Your task to perform on an android device: change the clock style Image 0: 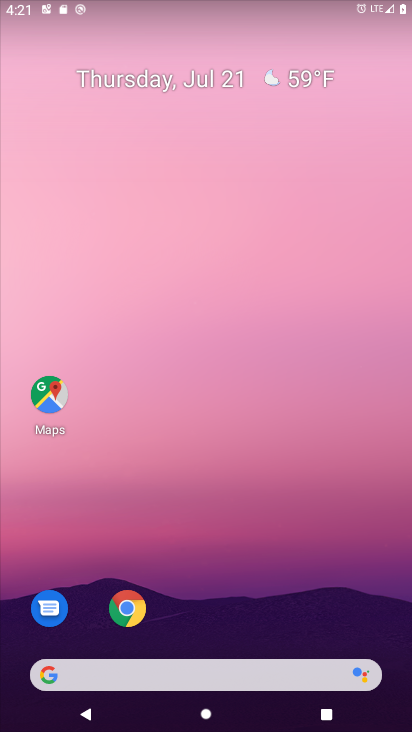
Step 0: drag from (247, 670) to (285, 117)
Your task to perform on an android device: change the clock style Image 1: 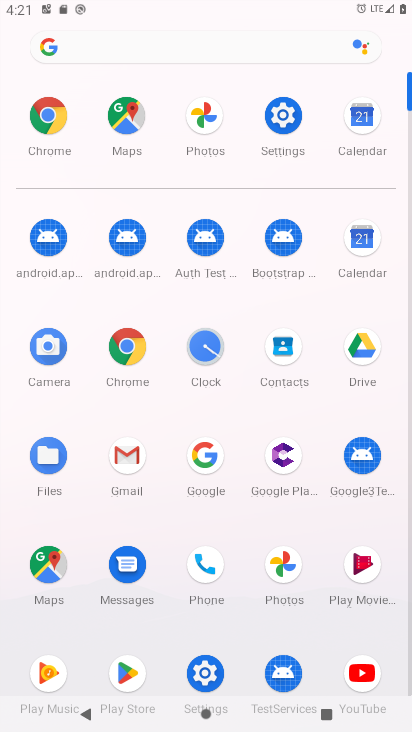
Step 1: click (208, 352)
Your task to perform on an android device: change the clock style Image 2: 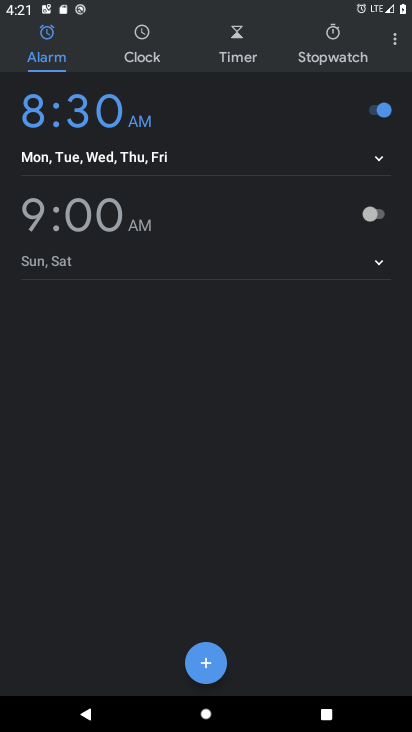
Step 2: drag from (391, 28) to (333, 83)
Your task to perform on an android device: change the clock style Image 3: 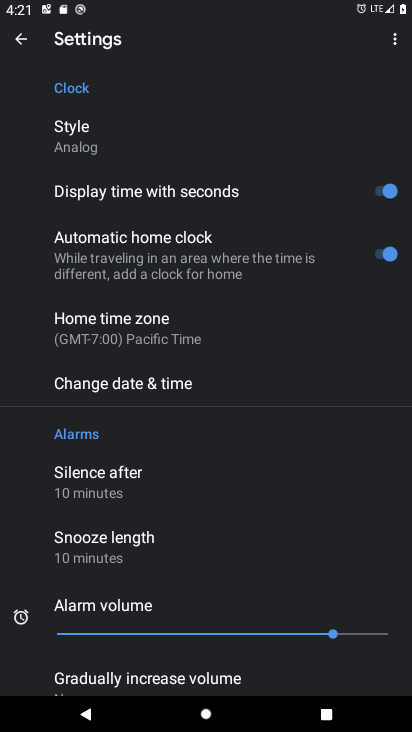
Step 3: click (114, 148)
Your task to perform on an android device: change the clock style Image 4: 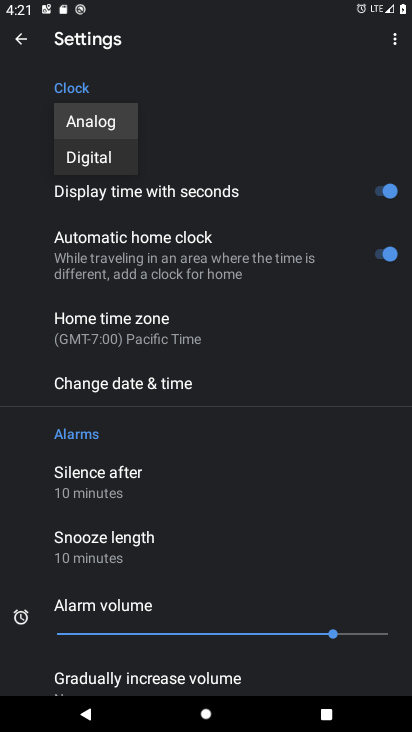
Step 4: click (89, 154)
Your task to perform on an android device: change the clock style Image 5: 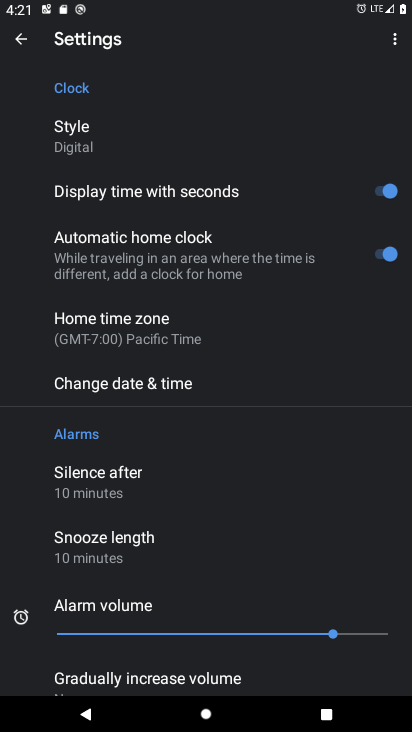
Step 5: task complete